Your task to perform on an android device: Go to Android settings Image 0: 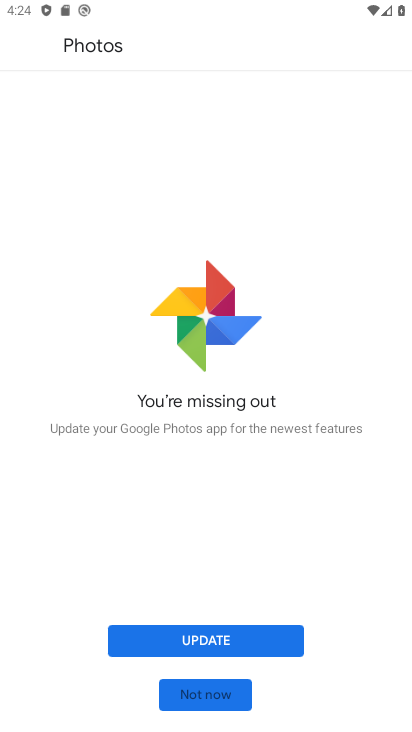
Step 0: press home button
Your task to perform on an android device: Go to Android settings Image 1: 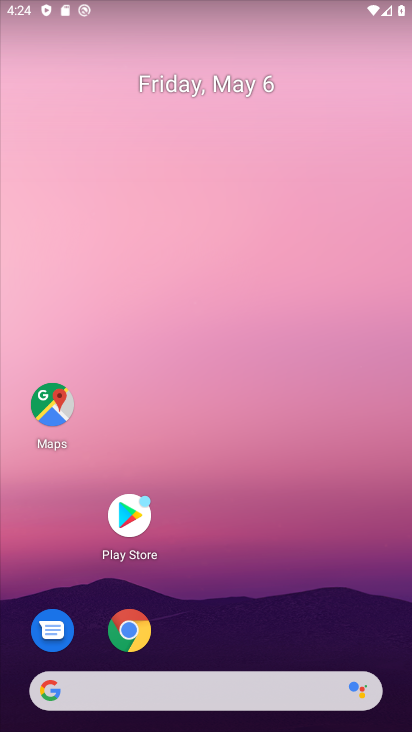
Step 1: drag from (273, 668) to (262, 461)
Your task to perform on an android device: Go to Android settings Image 2: 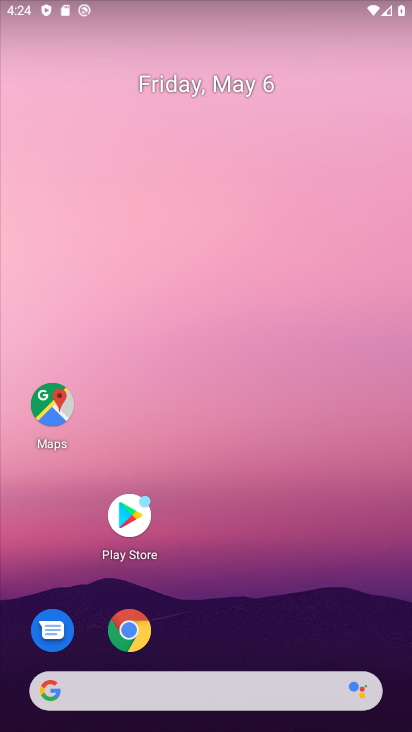
Step 2: drag from (231, 587) to (308, 77)
Your task to perform on an android device: Go to Android settings Image 3: 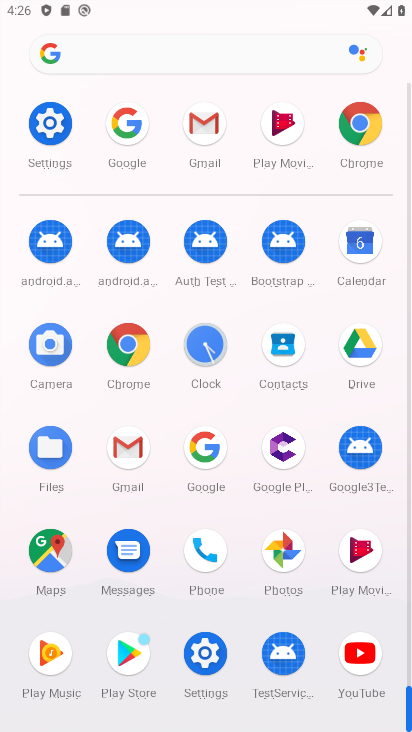
Step 3: click (42, 147)
Your task to perform on an android device: Go to Android settings Image 4: 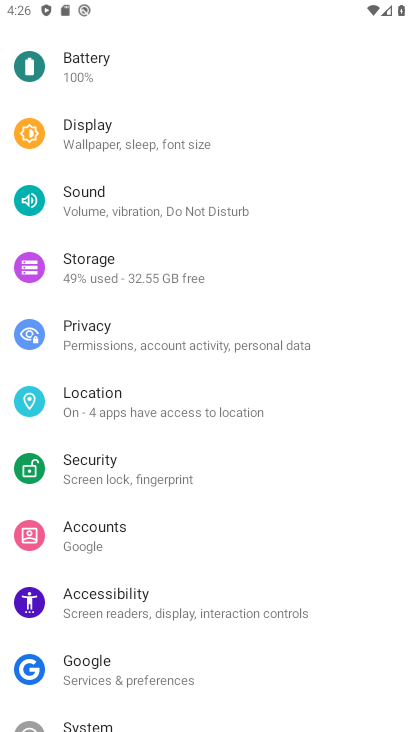
Step 4: drag from (181, 548) to (221, 1)
Your task to perform on an android device: Go to Android settings Image 5: 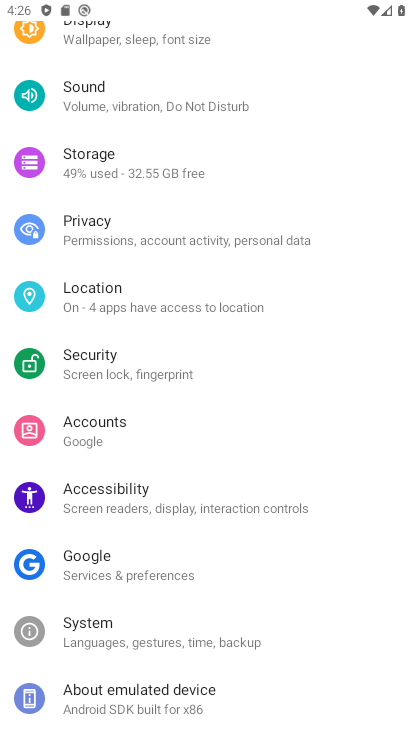
Step 5: drag from (221, 610) to (262, 244)
Your task to perform on an android device: Go to Android settings Image 6: 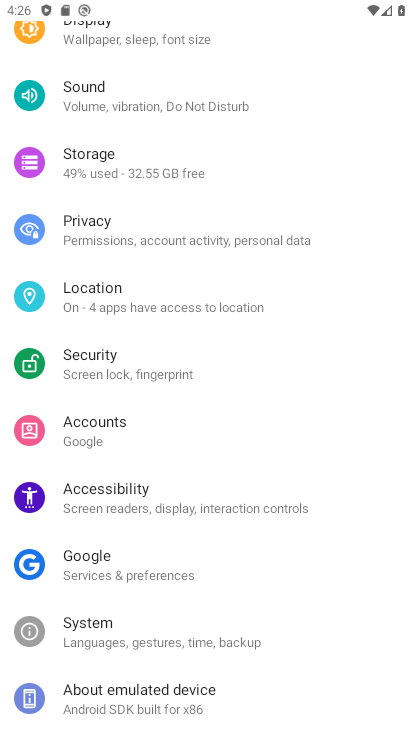
Step 6: click (215, 708)
Your task to perform on an android device: Go to Android settings Image 7: 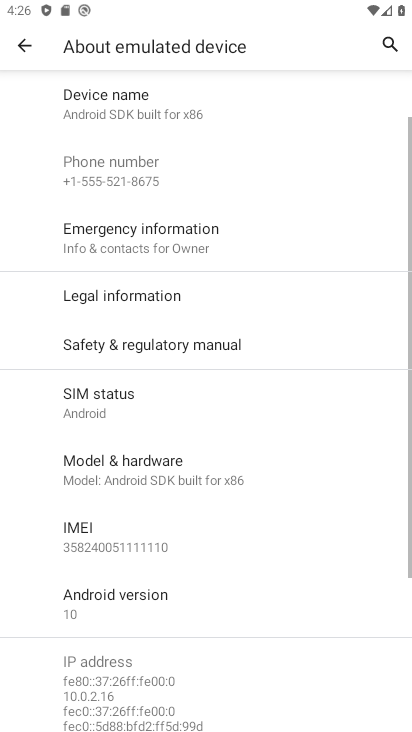
Step 7: click (215, 597)
Your task to perform on an android device: Go to Android settings Image 8: 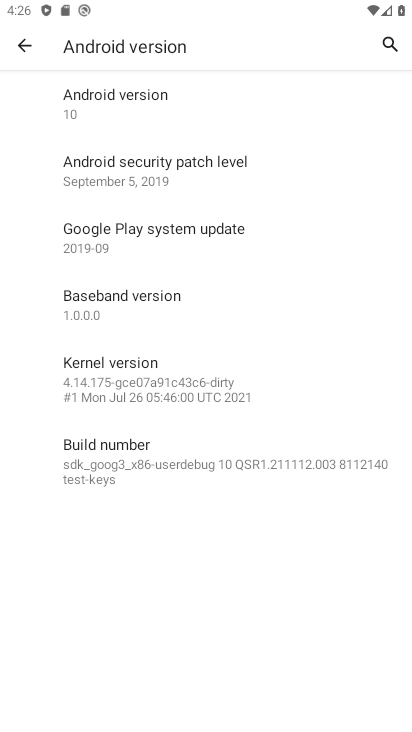
Step 8: task complete